Your task to perform on an android device: Open calendar and show me the fourth week of next month Image 0: 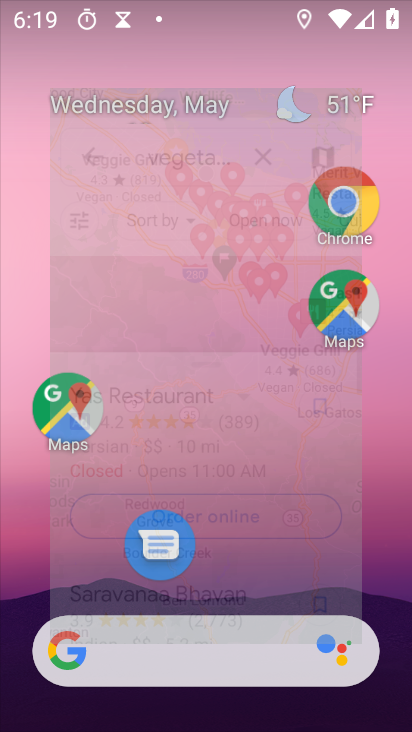
Step 0: drag from (313, 451) to (289, 332)
Your task to perform on an android device: Open calendar and show me the fourth week of next month Image 1: 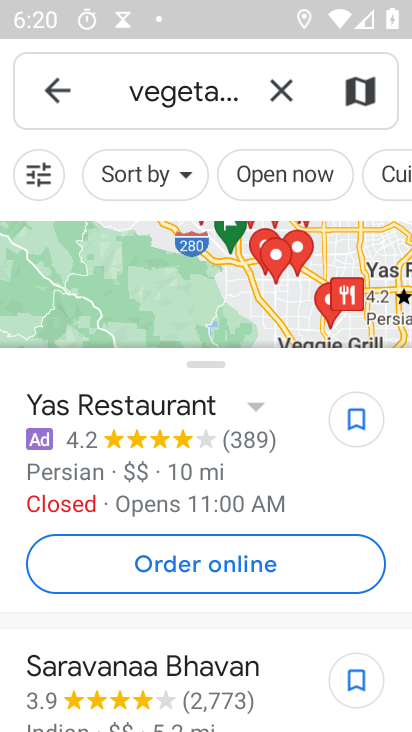
Step 1: press home button
Your task to perform on an android device: Open calendar and show me the fourth week of next month Image 2: 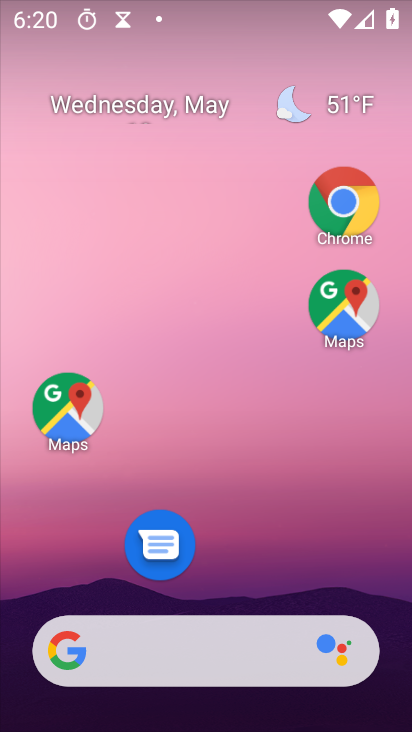
Step 2: drag from (262, 529) to (195, 99)
Your task to perform on an android device: Open calendar and show me the fourth week of next month Image 3: 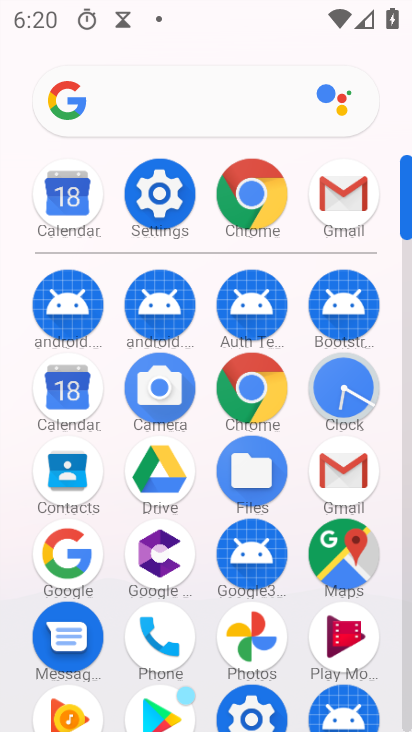
Step 3: click (57, 396)
Your task to perform on an android device: Open calendar and show me the fourth week of next month Image 4: 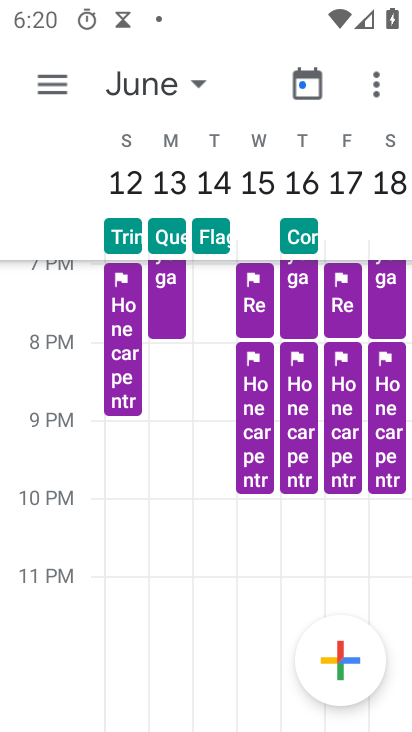
Step 4: click (149, 90)
Your task to perform on an android device: Open calendar and show me the fourth week of next month Image 5: 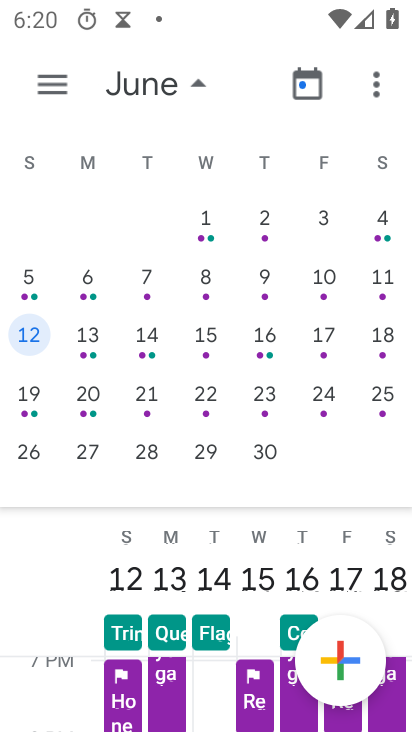
Step 5: click (23, 396)
Your task to perform on an android device: Open calendar and show me the fourth week of next month Image 6: 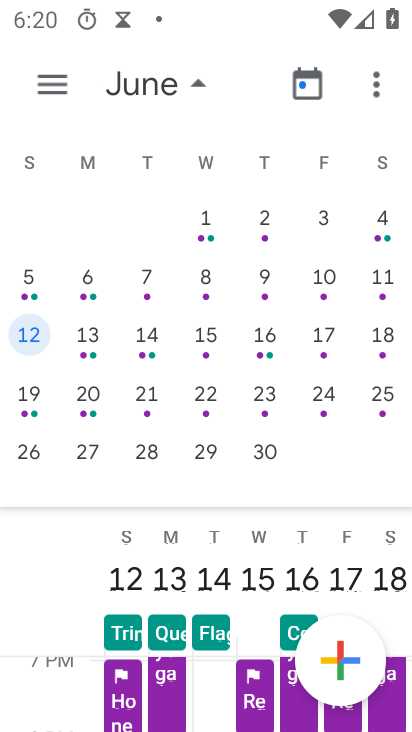
Step 6: click (30, 402)
Your task to perform on an android device: Open calendar and show me the fourth week of next month Image 7: 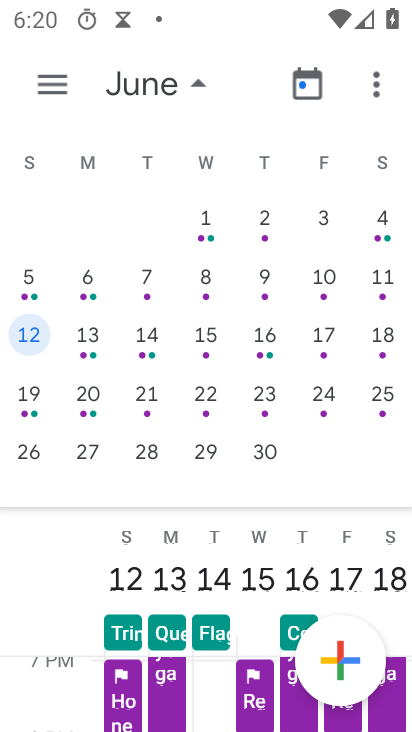
Step 7: click (31, 401)
Your task to perform on an android device: Open calendar and show me the fourth week of next month Image 8: 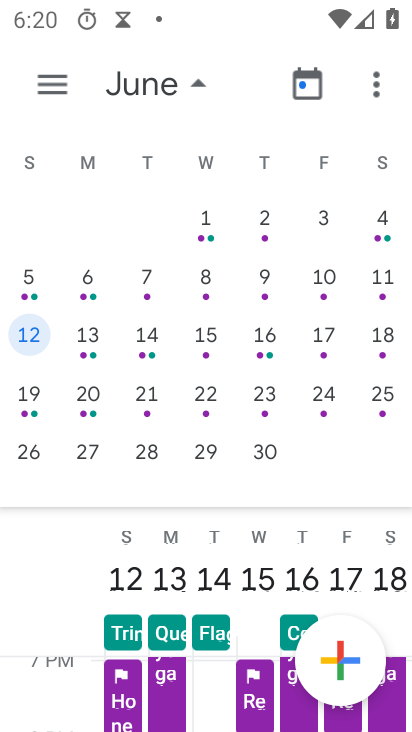
Step 8: click (31, 416)
Your task to perform on an android device: Open calendar and show me the fourth week of next month Image 9: 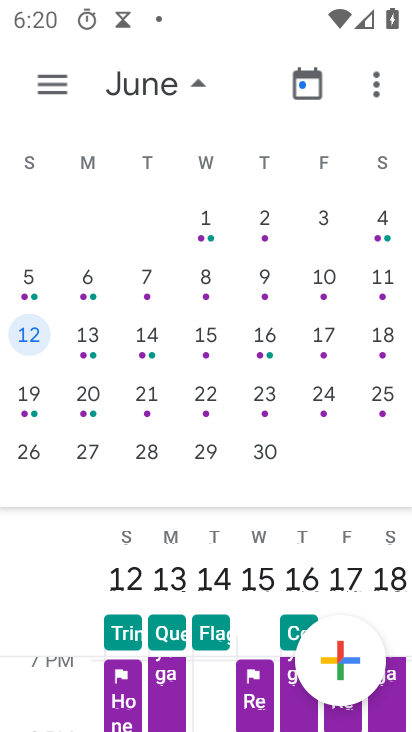
Step 9: click (31, 416)
Your task to perform on an android device: Open calendar and show me the fourth week of next month Image 10: 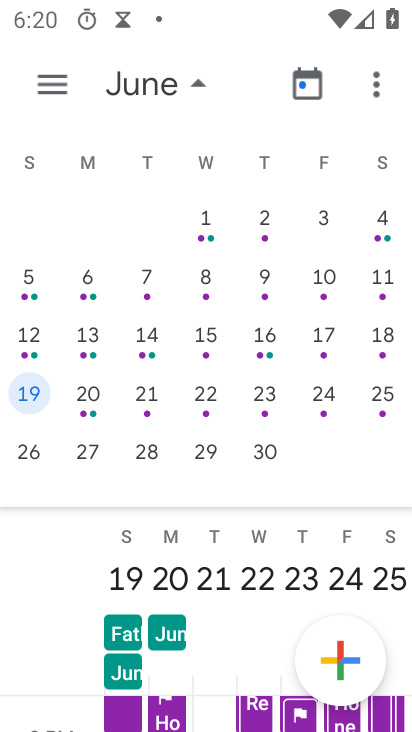
Step 10: task complete